Your task to perform on an android device: Open accessibility settings Image 0: 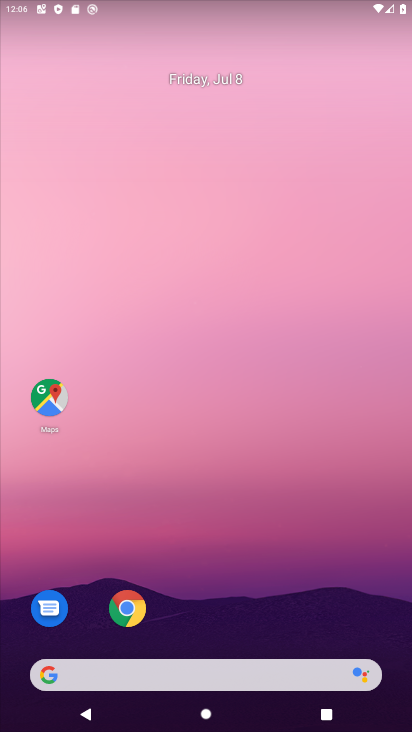
Step 0: drag from (18, 712) to (235, 14)
Your task to perform on an android device: Open accessibility settings Image 1: 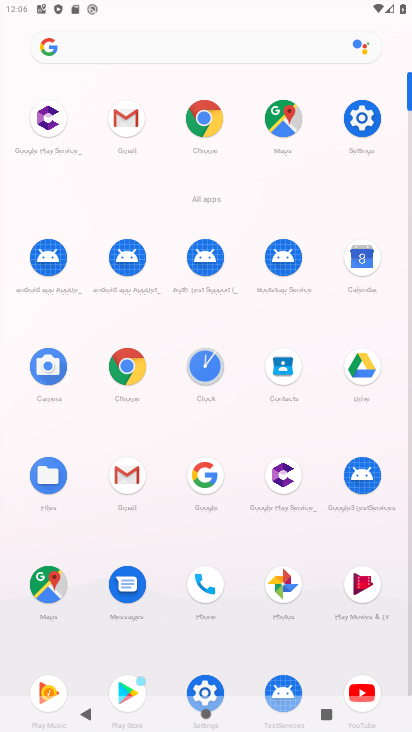
Step 1: click (199, 687)
Your task to perform on an android device: Open accessibility settings Image 2: 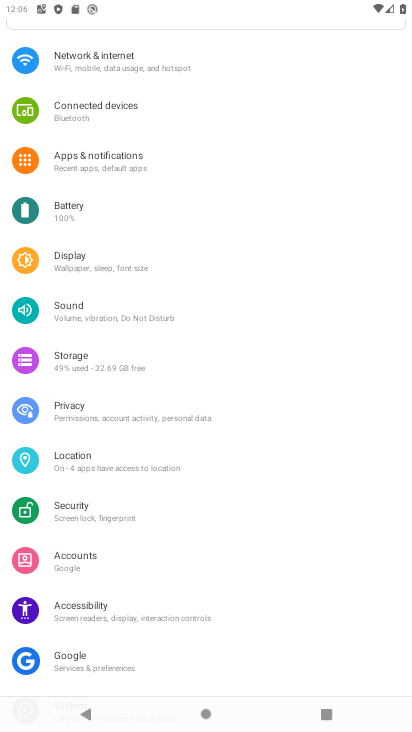
Step 2: click (93, 602)
Your task to perform on an android device: Open accessibility settings Image 3: 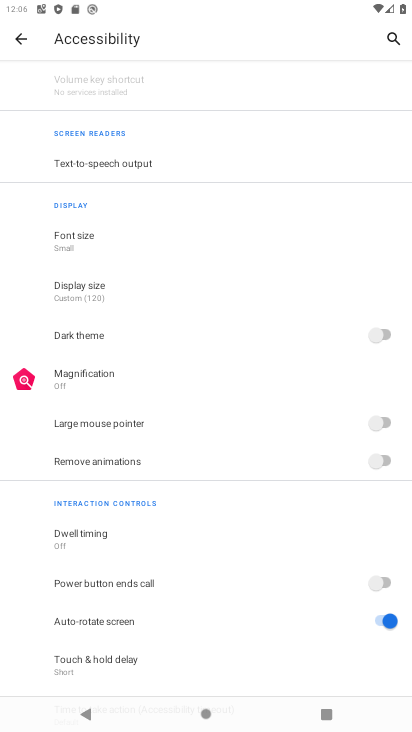
Step 3: task complete